Your task to perform on an android device: Open privacy settings Image 0: 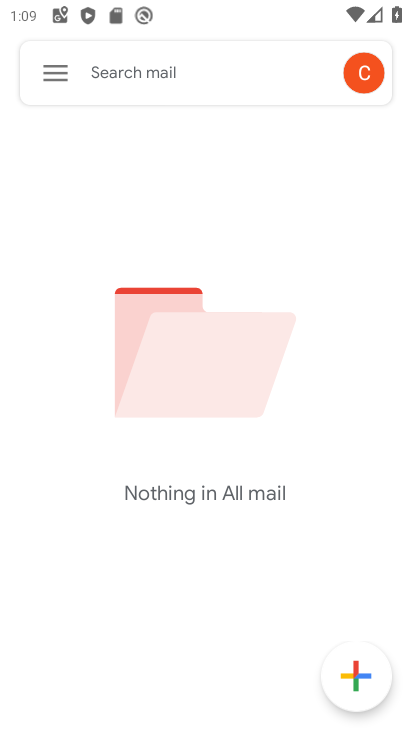
Step 0: press home button
Your task to perform on an android device: Open privacy settings Image 1: 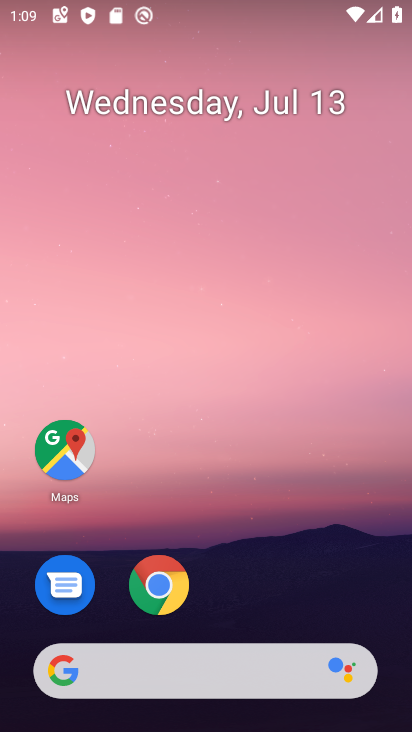
Step 1: drag from (194, 674) to (324, 184)
Your task to perform on an android device: Open privacy settings Image 2: 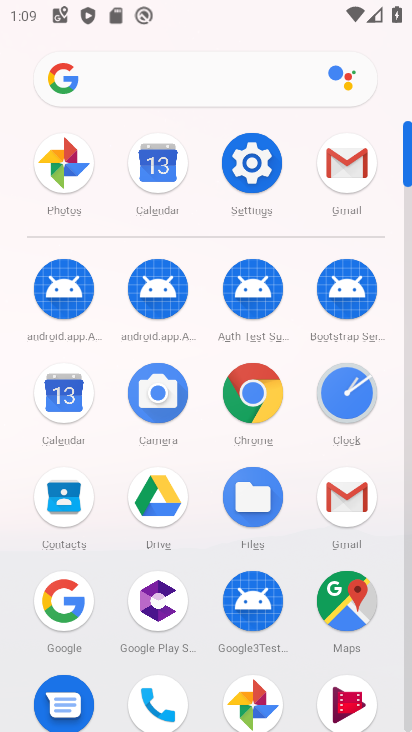
Step 2: click (252, 169)
Your task to perform on an android device: Open privacy settings Image 3: 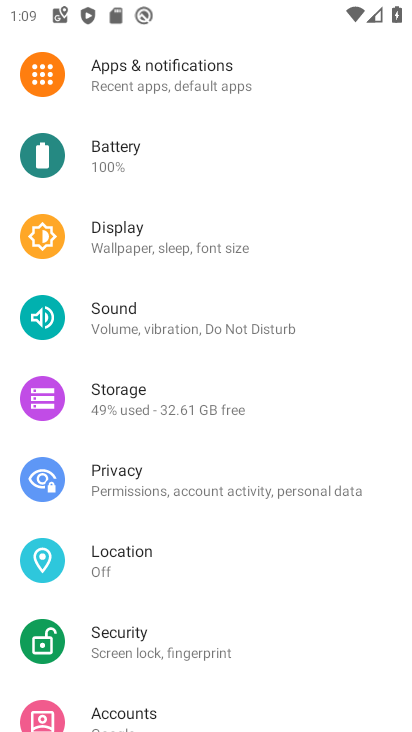
Step 3: click (140, 481)
Your task to perform on an android device: Open privacy settings Image 4: 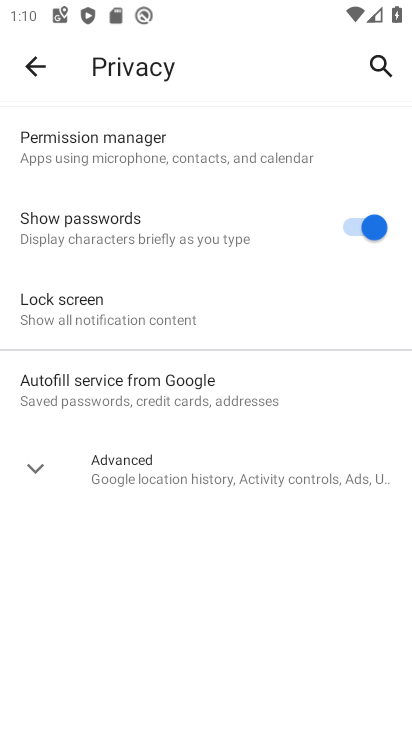
Step 4: task complete